Your task to perform on an android device: delete the emails in spam in the gmail app Image 0: 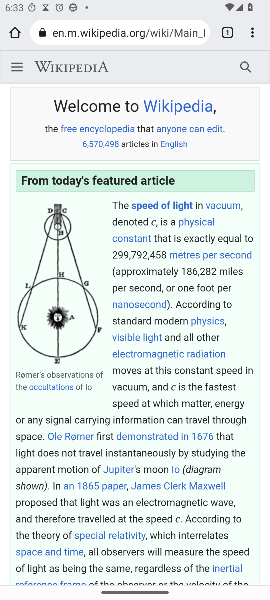
Step 0: press home button
Your task to perform on an android device: delete the emails in spam in the gmail app Image 1: 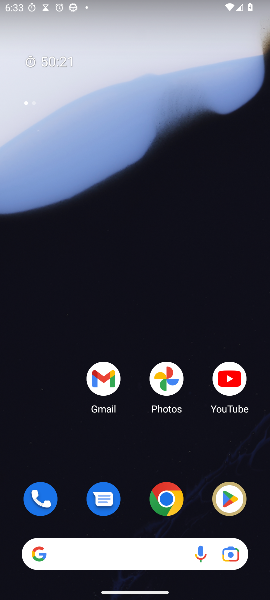
Step 1: drag from (170, 528) to (189, 42)
Your task to perform on an android device: delete the emails in spam in the gmail app Image 2: 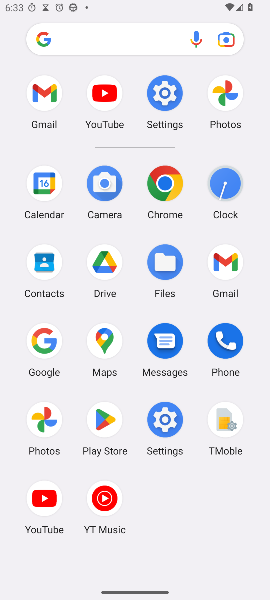
Step 2: click (43, 97)
Your task to perform on an android device: delete the emails in spam in the gmail app Image 3: 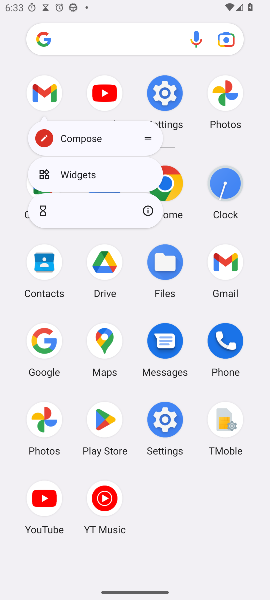
Step 3: click (43, 96)
Your task to perform on an android device: delete the emails in spam in the gmail app Image 4: 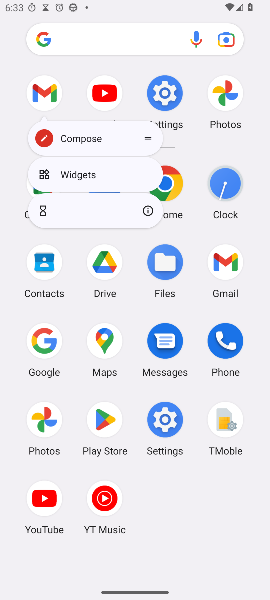
Step 4: click (43, 96)
Your task to perform on an android device: delete the emails in spam in the gmail app Image 5: 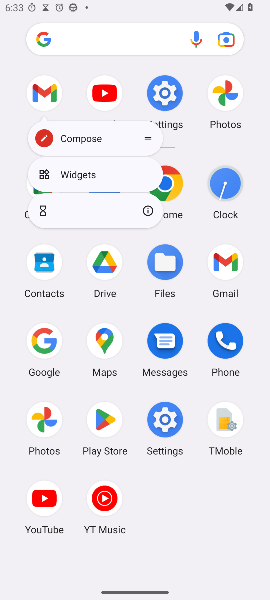
Step 5: click (43, 94)
Your task to perform on an android device: delete the emails in spam in the gmail app Image 6: 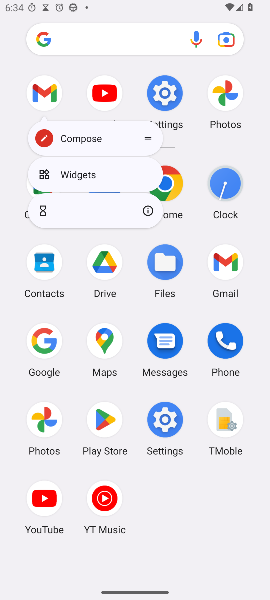
Step 6: click (44, 87)
Your task to perform on an android device: delete the emails in spam in the gmail app Image 7: 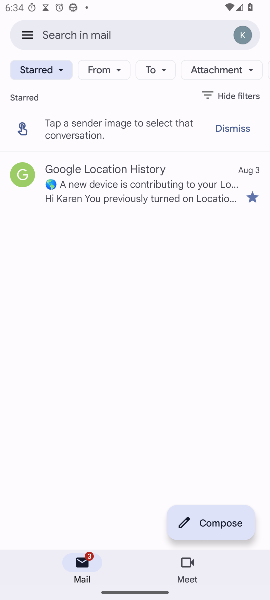
Step 7: click (25, 41)
Your task to perform on an android device: delete the emails in spam in the gmail app Image 8: 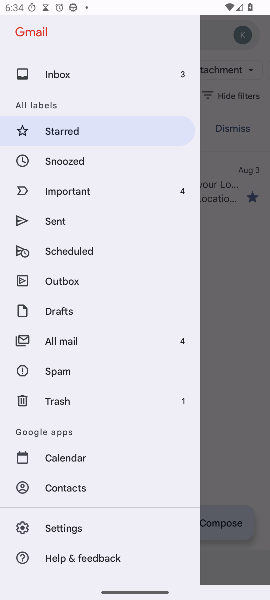
Step 8: click (92, 375)
Your task to perform on an android device: delete the emails in spam in the gmail app Image 9: 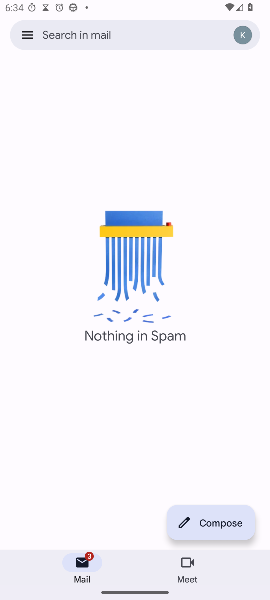
Step 9: task complete